Your task to perform on an android device: Open calendar and show me the third week of next month Image 0: 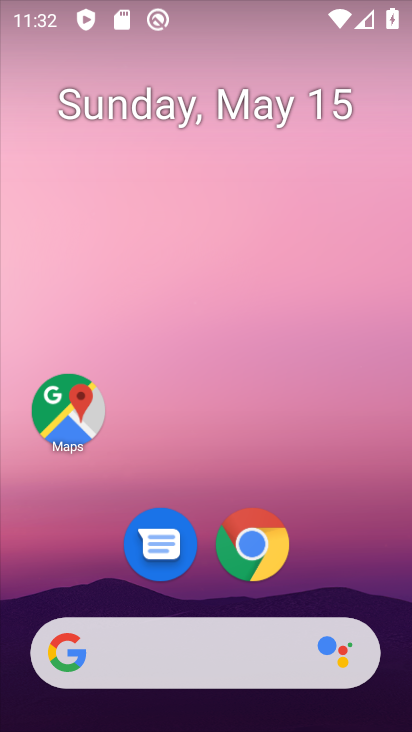
Step 0: drag from (361, 597) to (260, 59)
Your task to perform on an android device: Open calendar and show me the third week of next month Image 1: 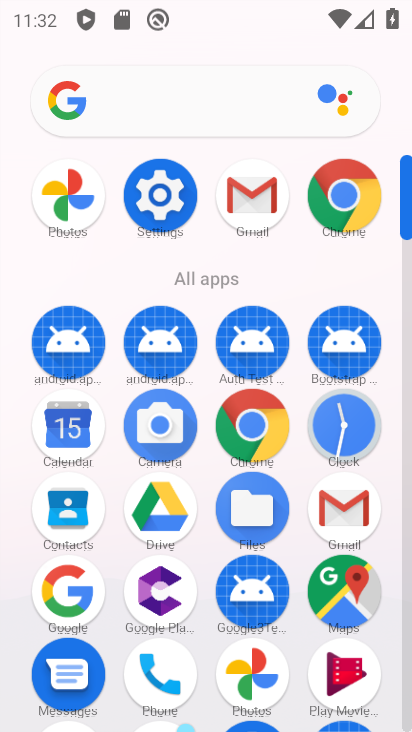
Step 1: click (70, 418)
Your task to perform on an android device: Open calendar and show me the third week of next month Image 2: 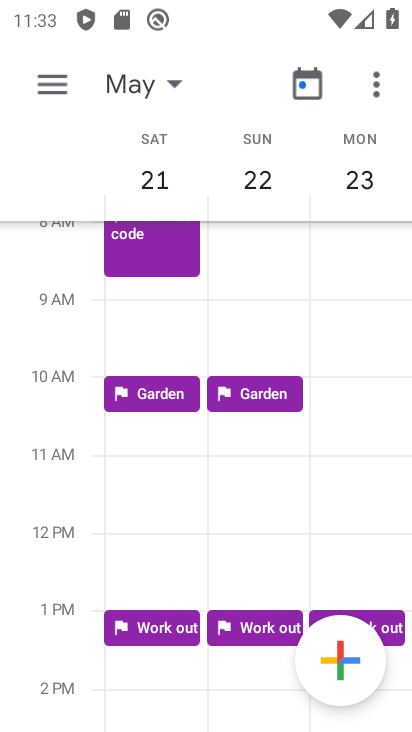
Step 2: click (52, 80)
Your task to perform on an android device: Open calendar and show me the third week of next month Image 3: 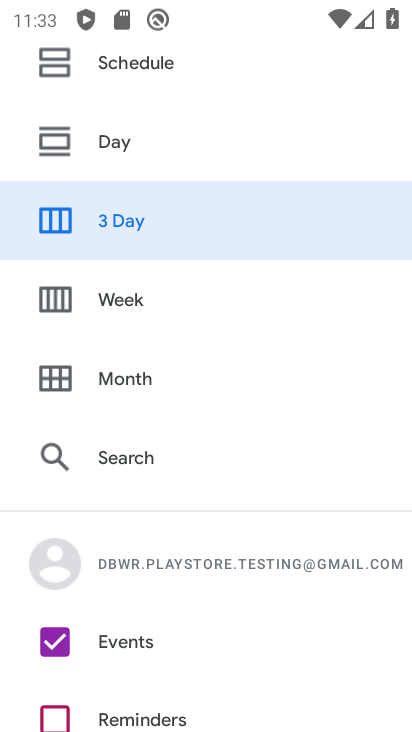
Step 3: click (154, 289)
Your task to perform on an android device: Open calendar and show me the third week of next month Image 4: 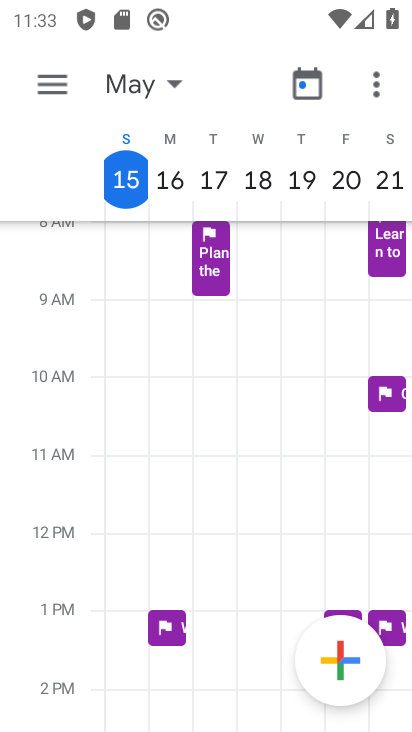
Step 4: click (181, 88)
Your task to perform on an android device: Open calendar and show me the third week of next month Image 5: 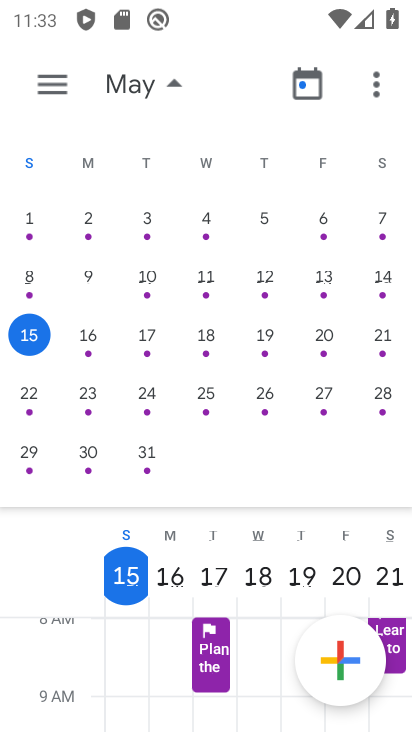
Step 5: drag from (410, 300) to (1, 314)
Your task to perform on an android device: Open calendar and show me the third week of next month Image 6: 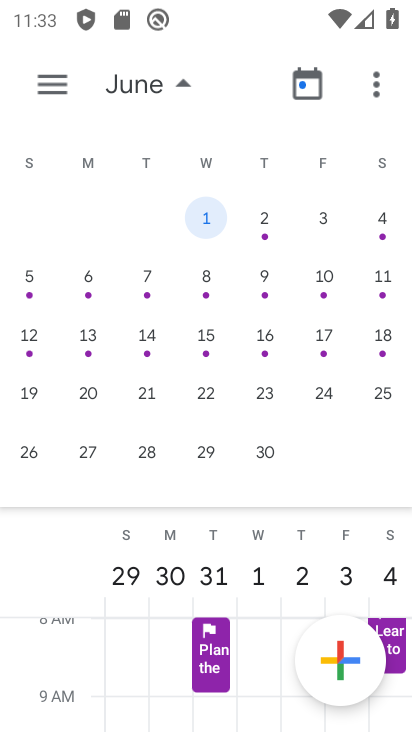
Step 6: click (205, 337)
Your task to perform on an android device: Open calendar and show me the third week of next month Image 7: 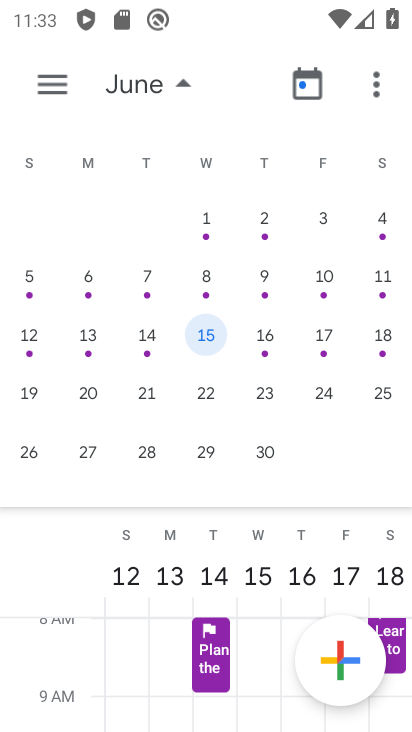
Step 7: click (184, 97)
Your task to perform on an android device: Open calendar and show me the third week of next month Image 8: 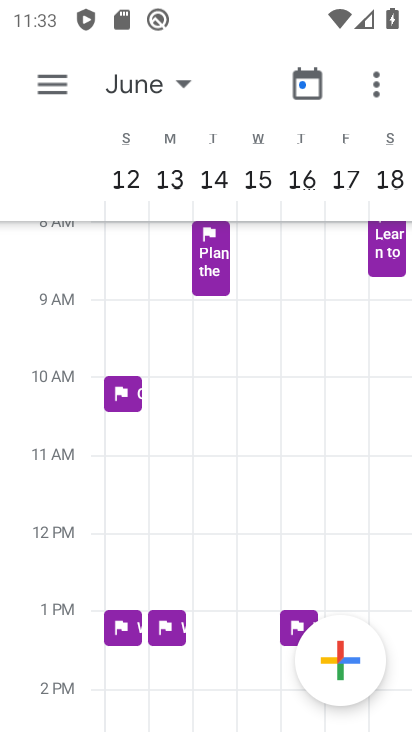
Step 8: task complete